Your task to perform on an android device: turn pop-ups off in chrome Image 0: 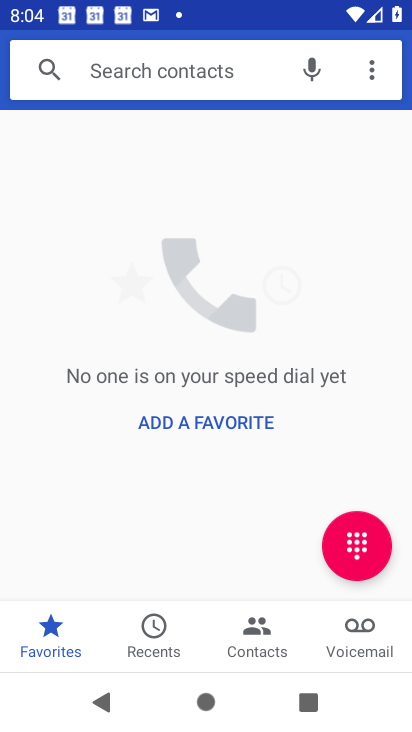
Step 0: press home button
Your task to perform on an android device: turn pop-ups off in chrome Image 1: 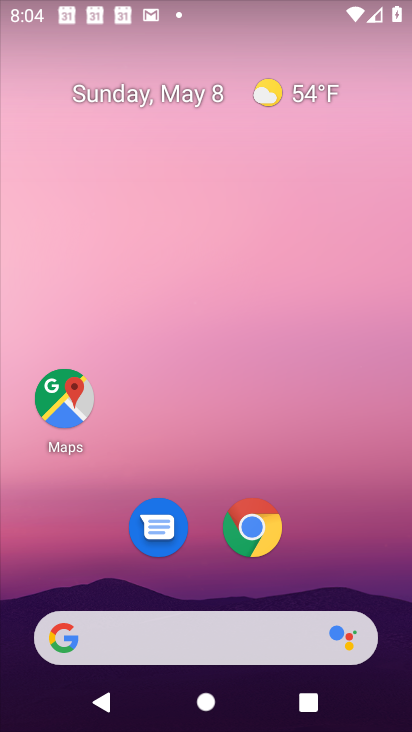
Step 1: click (253, 538)
Your task to perform on an android device: turn pop-ups off in chrome Image 2: 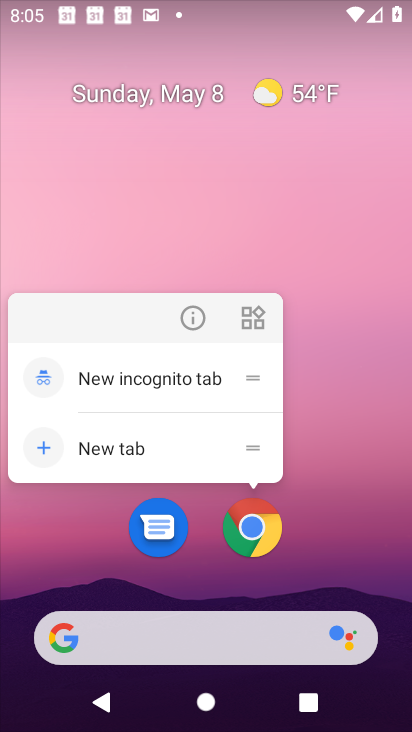
Step 2: click (255, 538)
Your task to perform on an android device: turn pop-ups off in chrome Image 3: 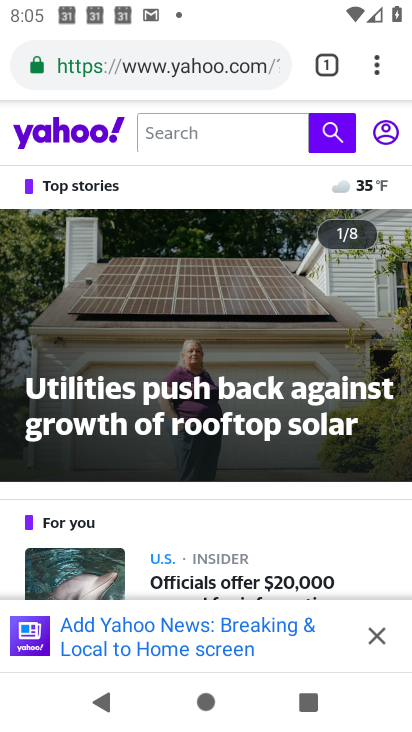
Step 3: click (373, 71)
Your task to perform on an android device: turn pop-ups off in chrome Image 4: 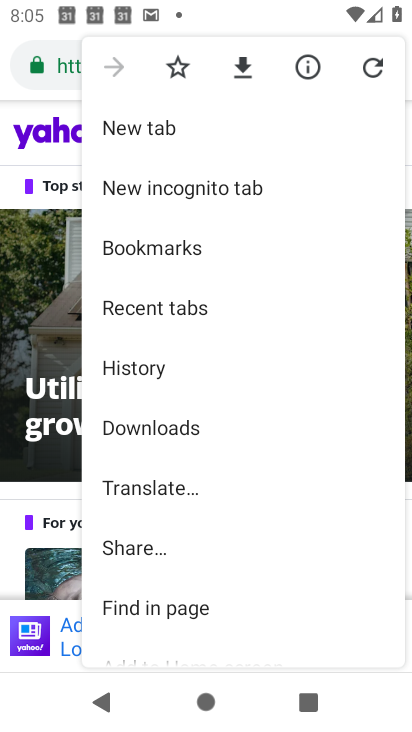
Step 4: drag from (310, 485) to (341, 133)
Your task to perform on an android device: turn pop-ups off in chrome Image 5: 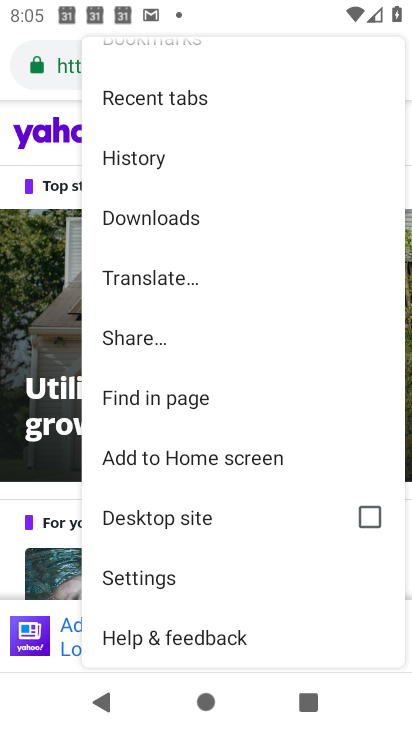
Step 5: click (198, 584)
Your task to perform on an android device: turn pop-ups off in chrome Image 6: 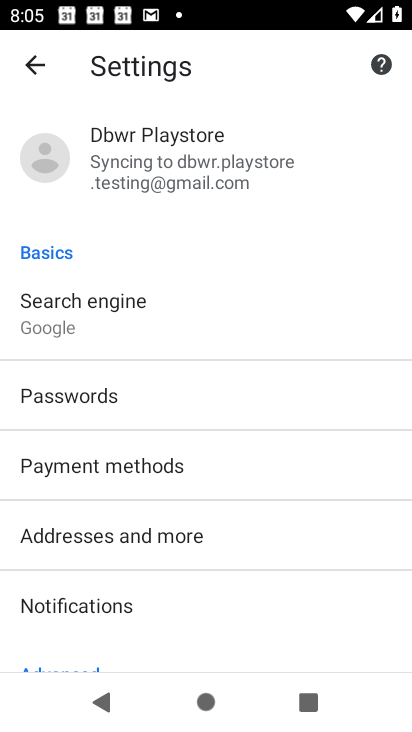
Step 6: drag from (211, 615) to (282, 360)
Your task to perform on an android device: turn pop-ups off in chrome Image 7: 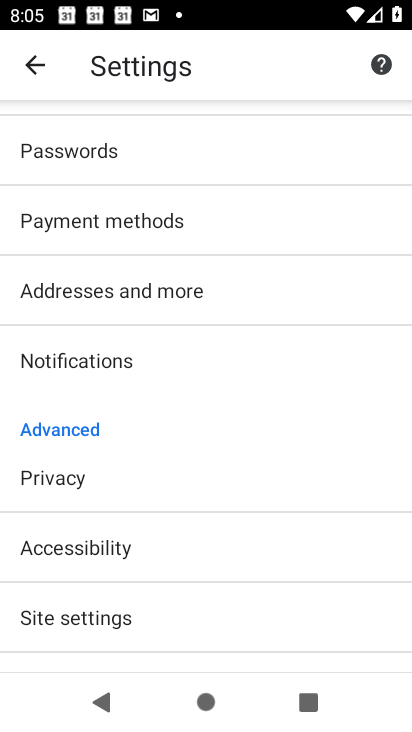
Step 7: click (124, 622)
Your task to perform on an android device: turn pop-ups off in chrome Image 8: 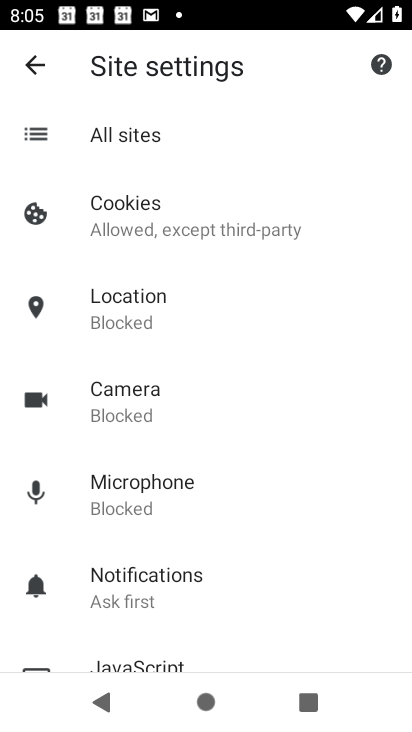
Step 8: drag from (199, 620) to (245, 464)
Your task to perform on an android device: turn pop-ups off in chrome Image 9: 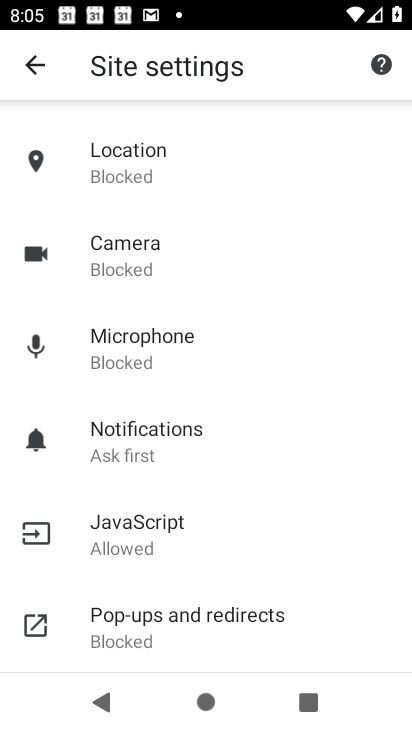
Step 9: click (174, 613)
Your task to perform on an android device: turn pop-ups off in chrome Image 10: 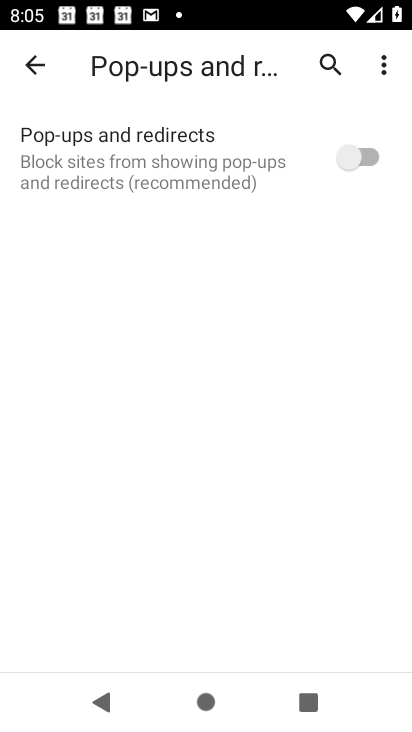
Step 10: task complete